Your task to perform on an android device: find which apps use the phone's location Image 0: 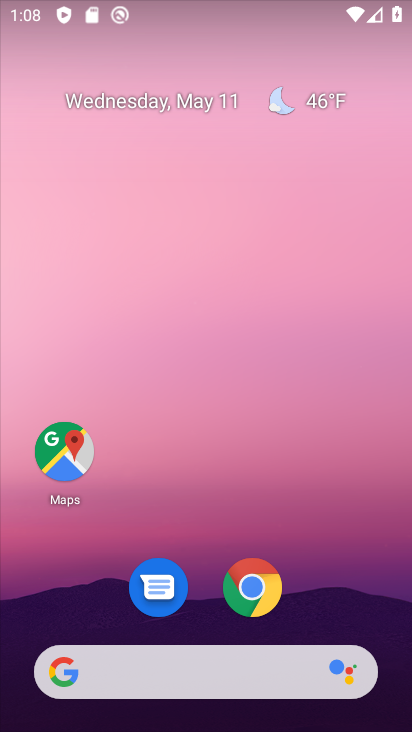
Step 0: press home button
Your task to perform on an android device: find which apps use the phone's location Image 1: 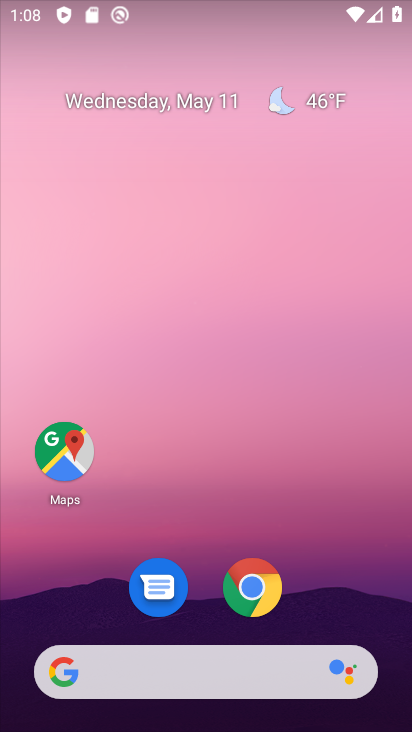
Step 1: press home button
Your task to perform on an android device: find which apps use the phone's location Image 2: 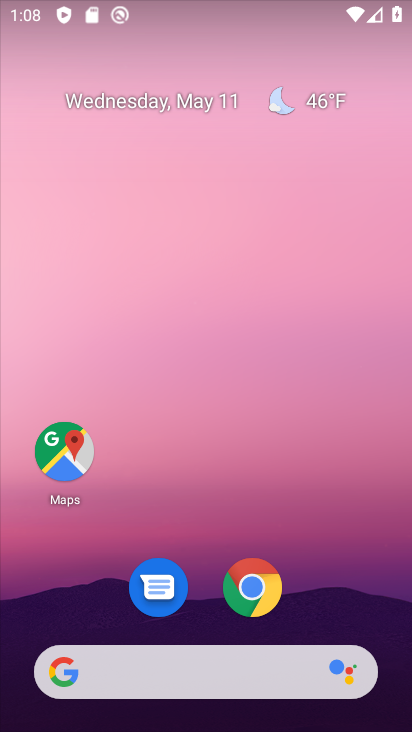
Step 2: drag from (304, 624) to (377, 34)
Your task to perform on an android device: find which apps use the phone's location Image 3: 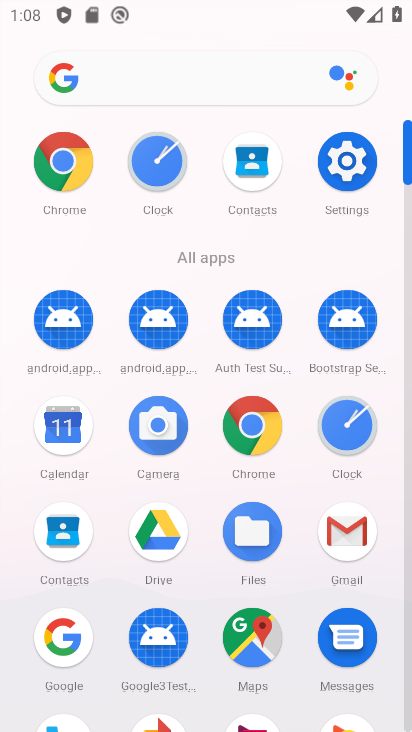
Step 3: click (403, 702)
Your task to perform on an android device: find which apps use the phone's location Image 4: 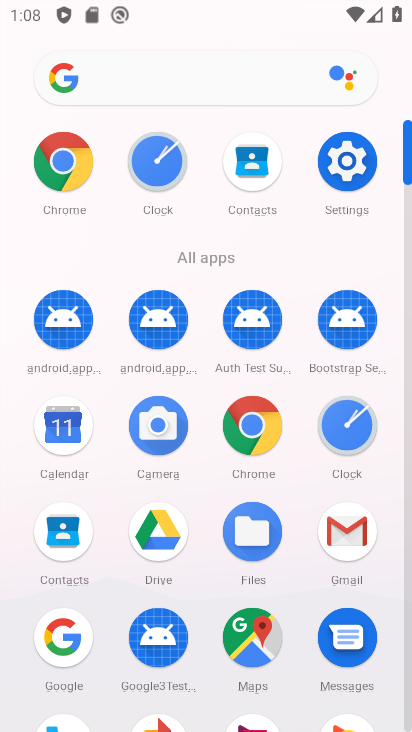
Step 4: click (407, 714)
Your task to perform on an android device: find which apps use the phone's location Image 5: 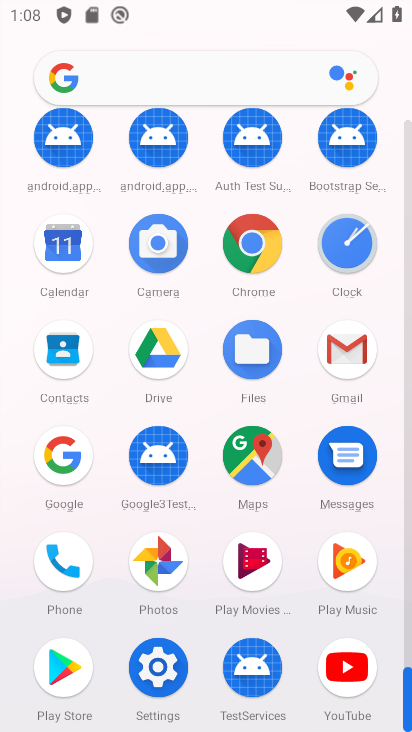
Step 5: click (44, 576)
Your task to perform on an android device: find which apps use the phone's location Image 6: 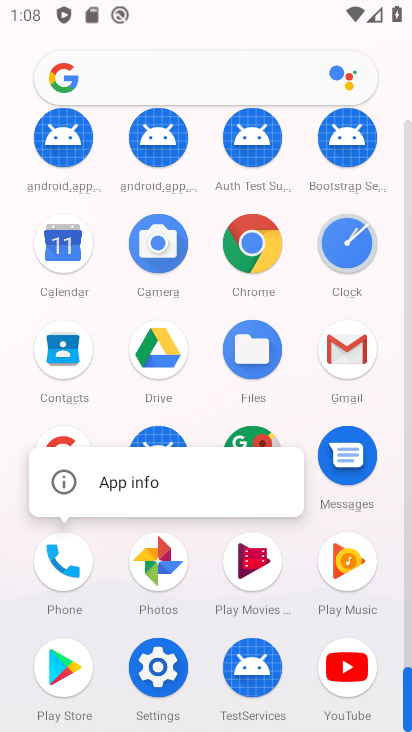
Step 6: click (276, 480)
Your task to perform on an android device: find which apps use the phone's location Image 7: 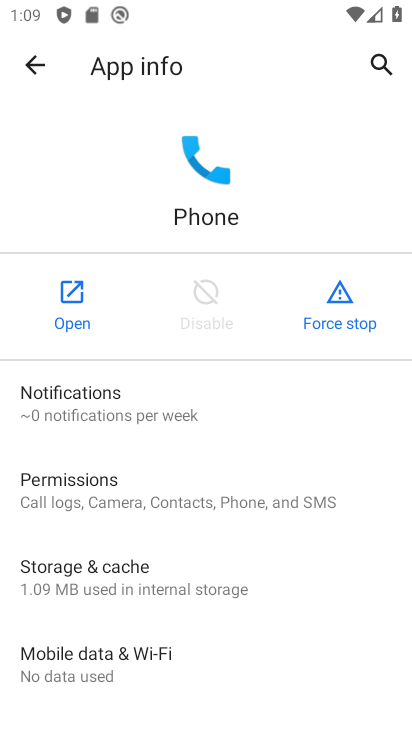
Step 7: click (138, 522)
Your task to perform on an android device: find which apps use the phone's location Image 8: 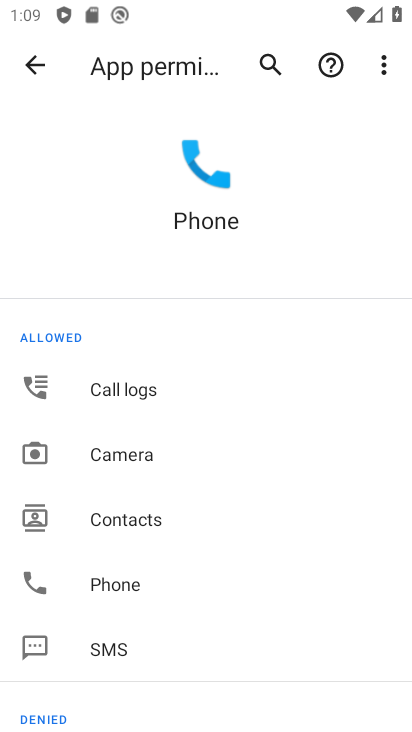
Step 8: drag from (159, 647) to (119, 432)
Your task to perform on an android device: find which apps use the phone's location Image 9: 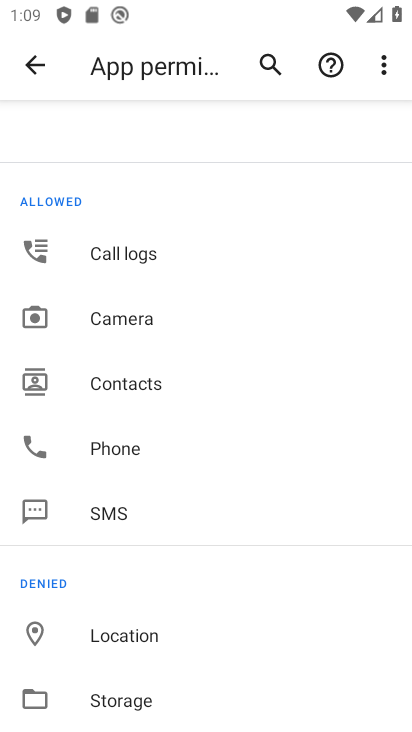
Step 9: click (81, 630)
Your task to perform on an android device: find which apps use the phone's location Image 10: 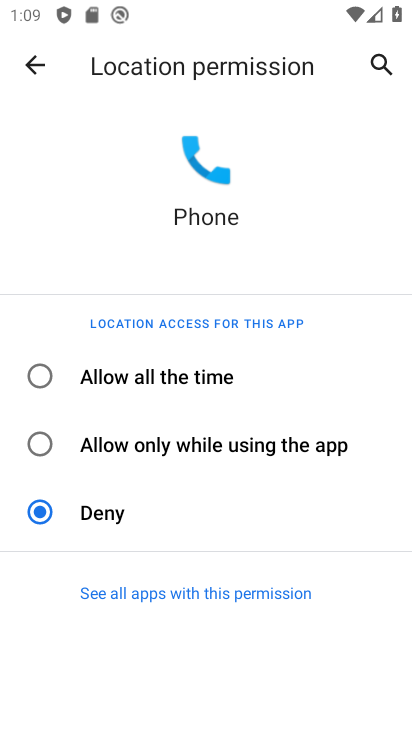
Step 10: click (169, 602)
Your task to perform on an android device: find which apps use the phone's location Image 11: 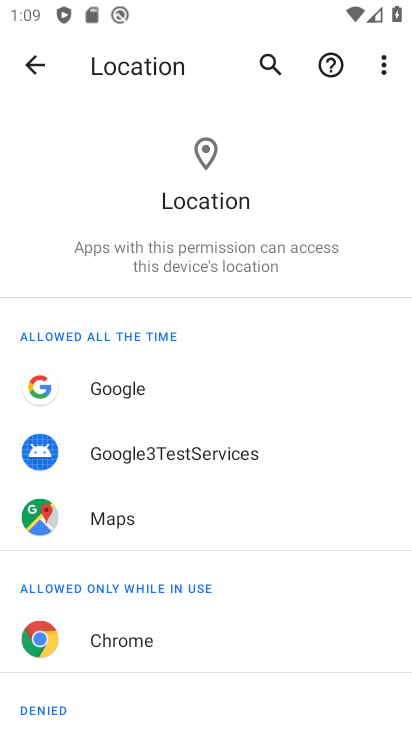
Step 11: task complete